Your task to perform on an android device: Open internet settings Image 0: 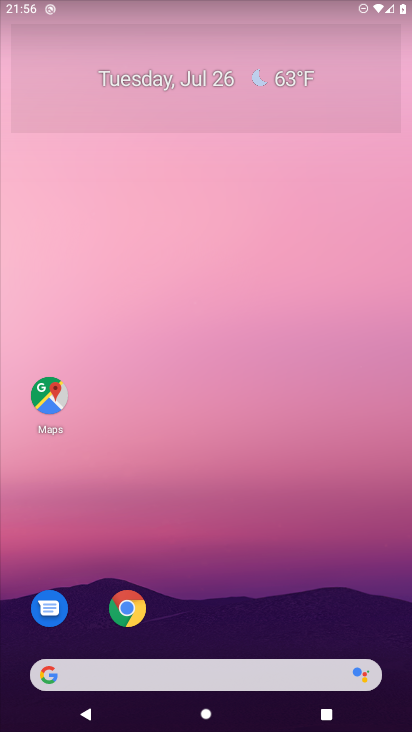
Step 0: click (268, 7)
Your task to perform on an android device: Open internet settings Image 1: 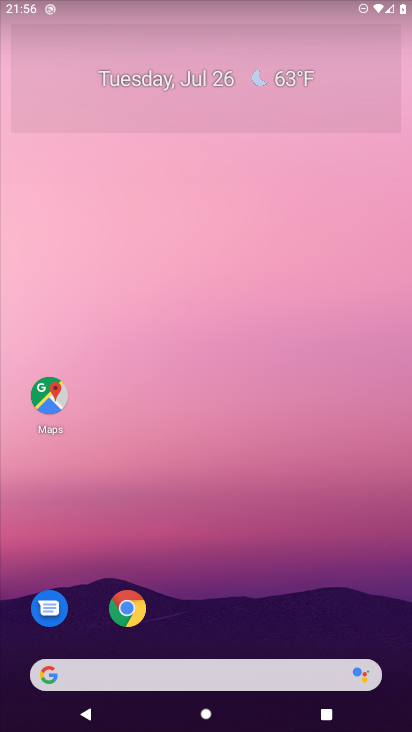
Step 1: drag from (30, 698) to (284, 72)
Your task to perform on an android device: Open internet settings Image 2: 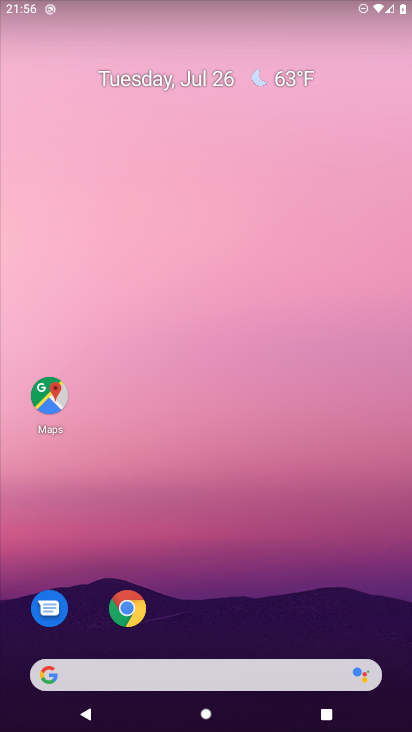
Step 2: drag from (33, 690) to (253, 24)
Your task to perform on an android device: Open internet settings Image 3: 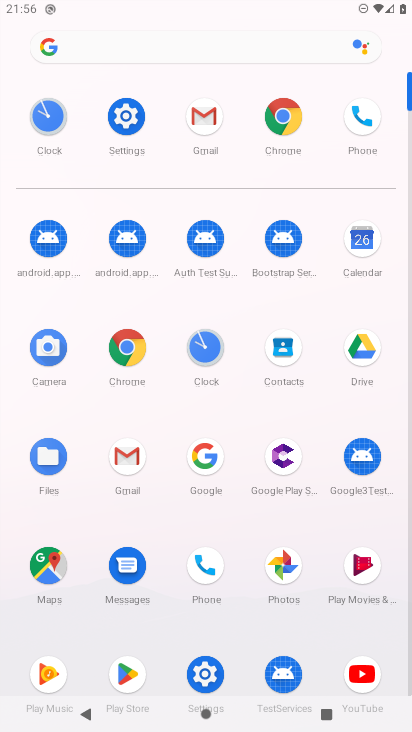
Step 3: click (201, 671)
Your task to perform on an android device: Open internet settings Image 4: 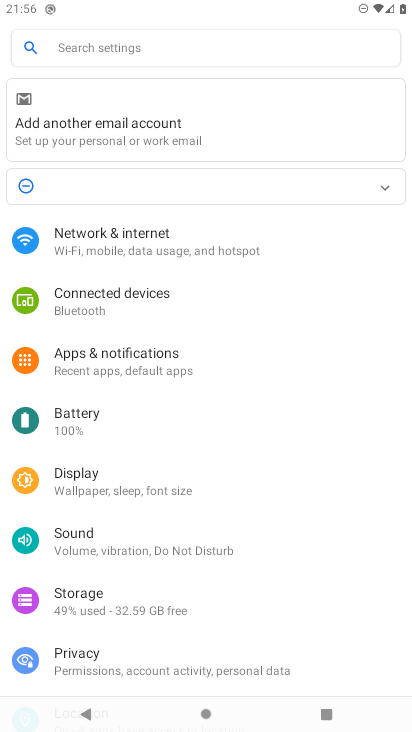
Step 4: click (120, 243)
Your task to perform on an android device: Open internet settings Image 5: 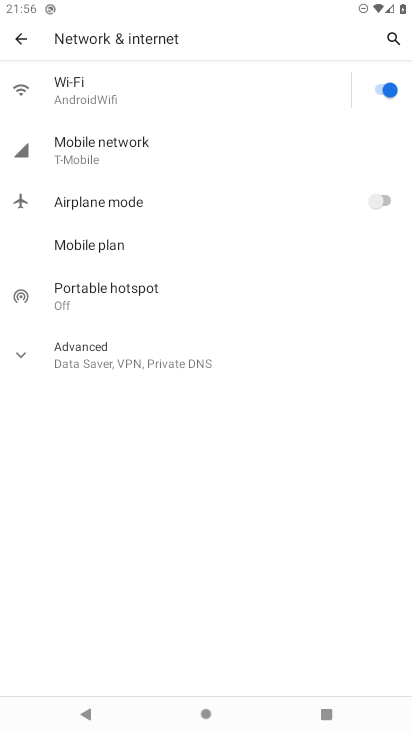
Step 5: task complete